Your task to perform on an android device: turn vacation reply on in the gmail app Image 0: 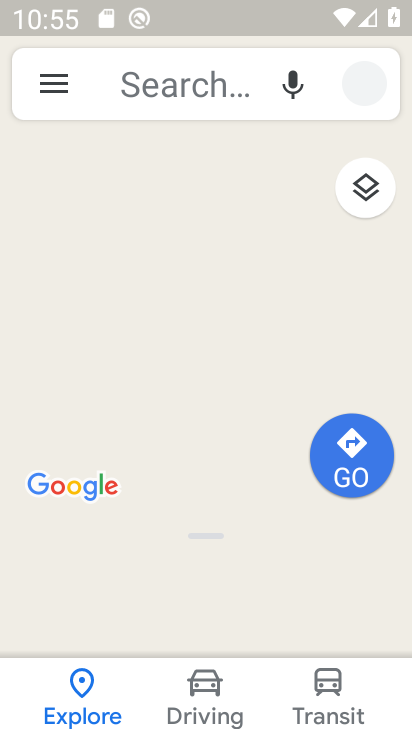
Step 0: press home button
Your task to perform on an android device: turn vacation reply on in the gmail app Image 1: 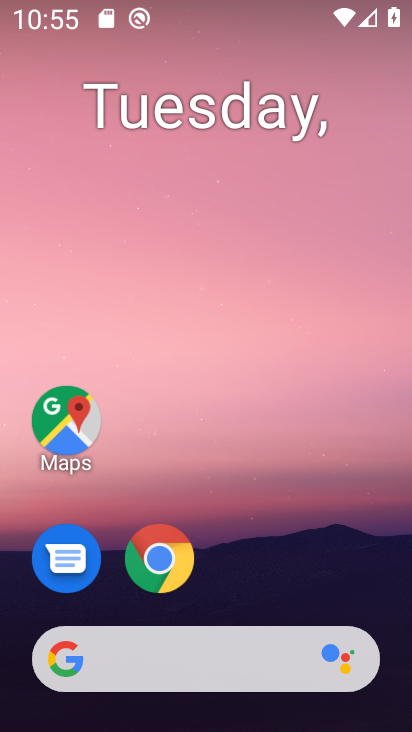
Step 1: drag from (360, 579) to (381, 99)
Your task to perform on an android device: turn vacation reply on in the gmail app Image 2: 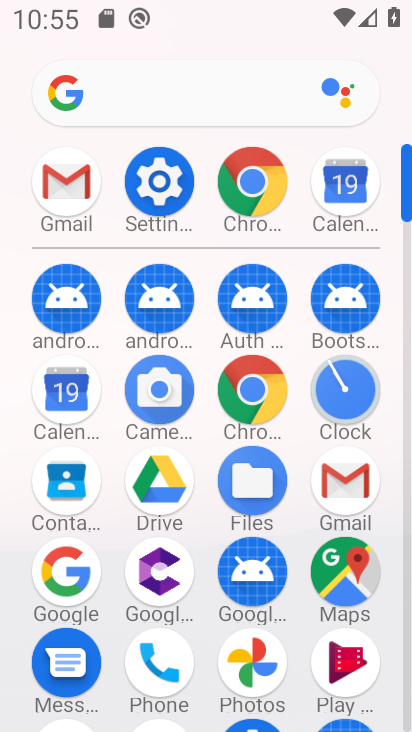
Step 2: click (70, 199)
Your task to perform on an android device: turn vacation reply on in the gmail app Image 3: 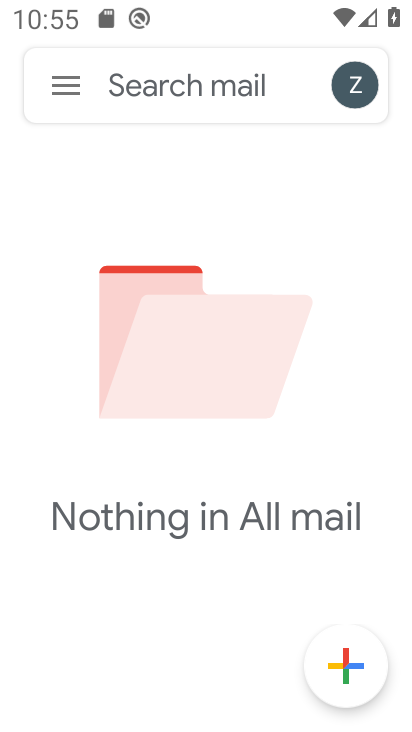
Step 3: click (66, 92)
Your task to perform on an android device: turn vacation reply on in the gmail app Image 4: 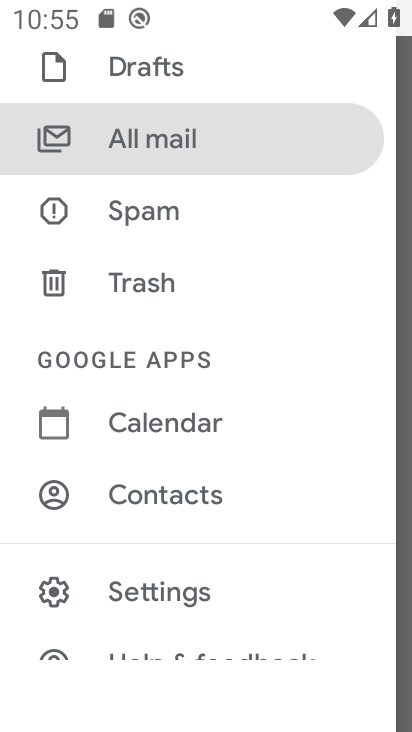
Step 4: drag from (335, 242) to (339, 353)
Your task to perform on an android device: turn vacation reply on in the gmail app Image 5: 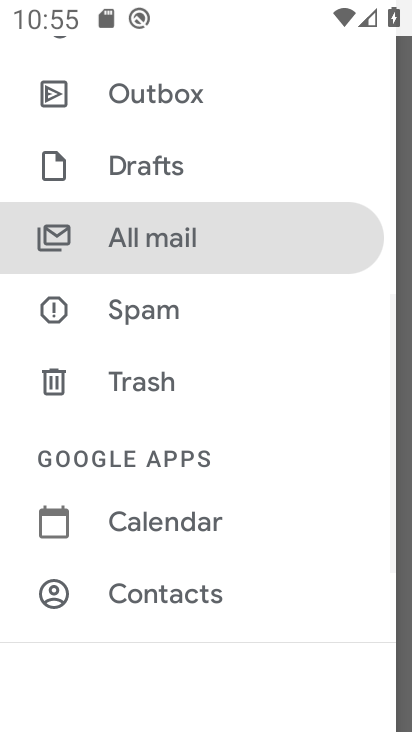
Step 5: drag from (343, 289) to (345, 378)
Your task to perform on an android device: turn vacation reply on in the gmail app Image 6: 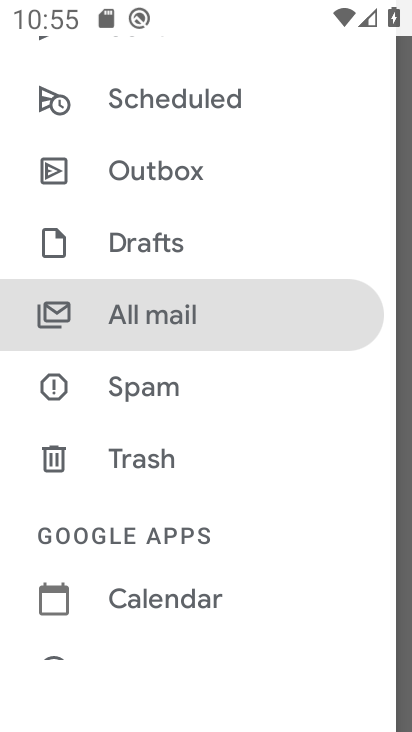
Step 6: drag from (316, 222) to (318, 354)
Your task to perform on an android device: turn vacation reply on in the gmail app Image 7: 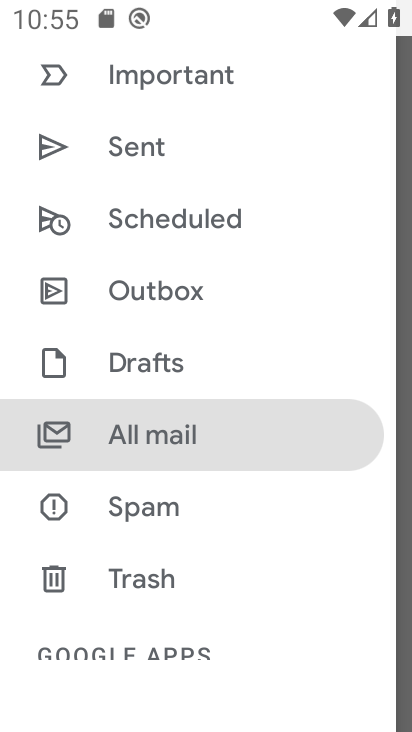
Step 7: drag from (319, 197) to (323, 316)
Your task to perform on an android device: turn vacation reply on in the gmail app Image 8: 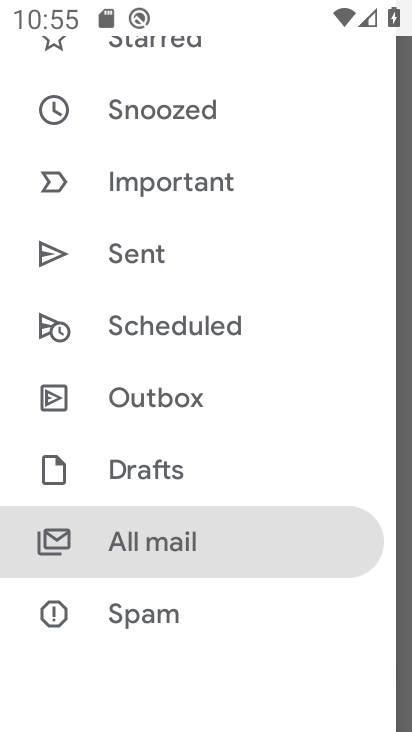
Step 8: drag from (327, 158) to (332, 277)
Your task to perform on an android device: turn vacation reply on in the gmail app Image 9: 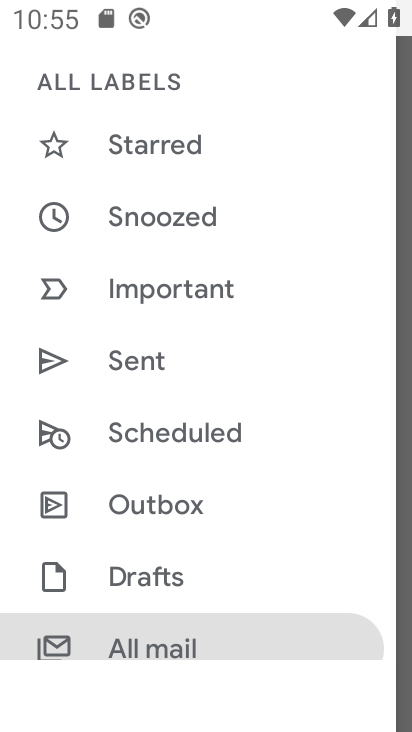
Step 9: drag from (322, 390) to (335, 283)
Your task to perform on an android device: turn vacation reply on in the gmail app Image 10: 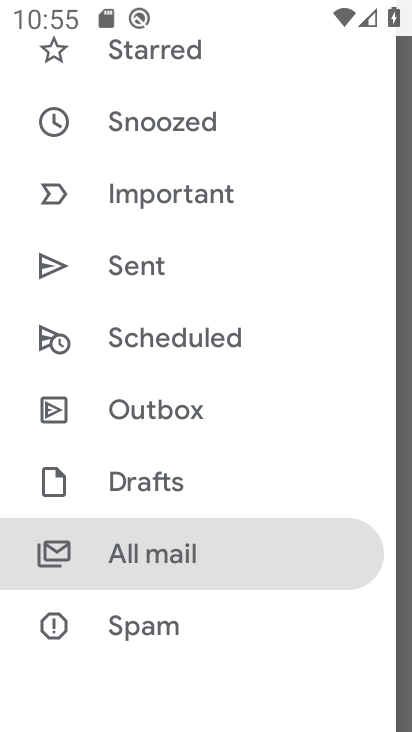
Step 10: drag from (329, 393) to (312, 252)
Your task to perform on an android device: turn vacation reply on in the gmail app Image 11: 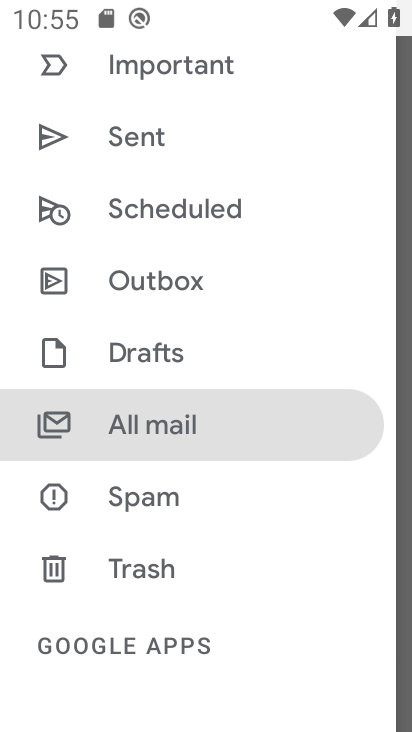
Step 11: drag from (322, 497) to (322, 323)
Your task to perform on an android device: turn vacation reply on in the gmail app Image 12: 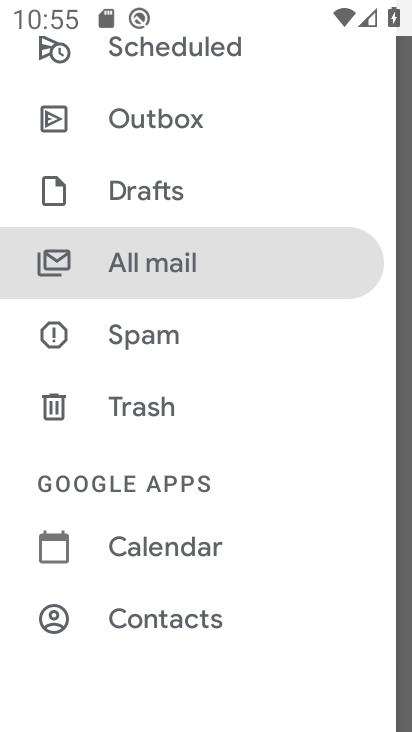
Step 12: drag from (310, 456) to (318, 310)
Your task to perform on an android device: turn vacation reply on in the gmail app Image 13: 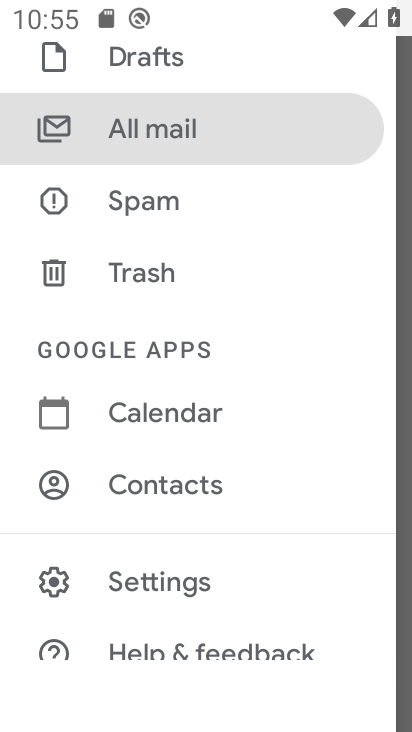
Step 13: click (277, 564)
Your task to perform on an android device: turn vacation reply on in the gmail app Image 14: 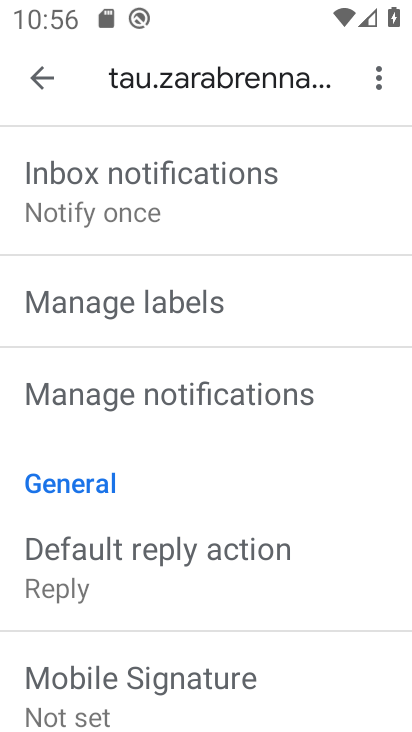
Step 14: drag from (352, 579) to (353, 427)
Your task to perform on an android device: turn vacation reply on in the gmail app Image 15: 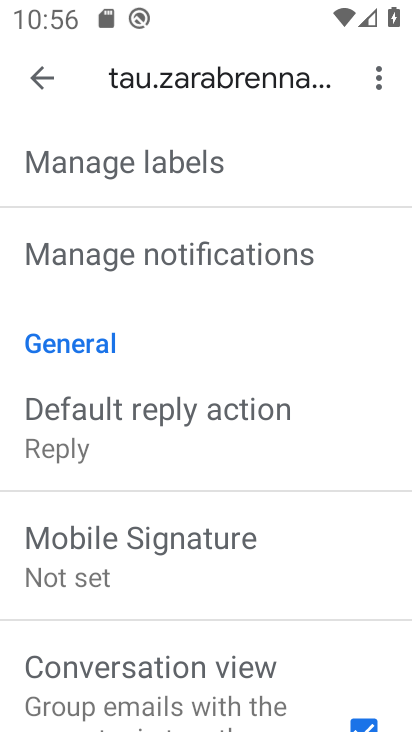
Step 15: drag from (344, 567) to (346, 431)
Your task to perform on an android device: turn vacation reply on in the gmail app Image 16: 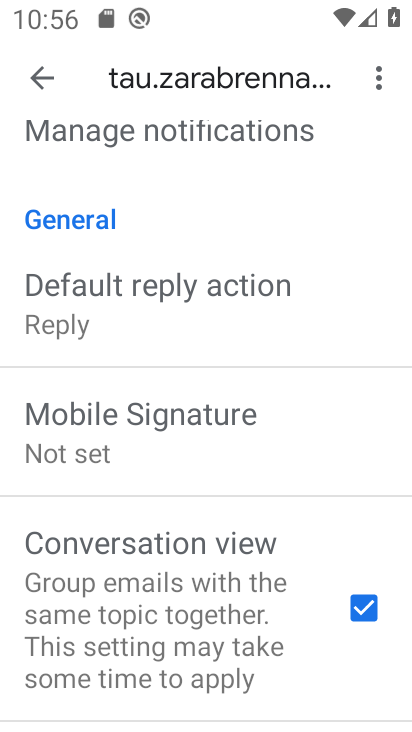
Step 16: drag from (313, 558) to (315, 457)
Your task to perform on an android device: turn vacation reply on in the gmail app Image 17: 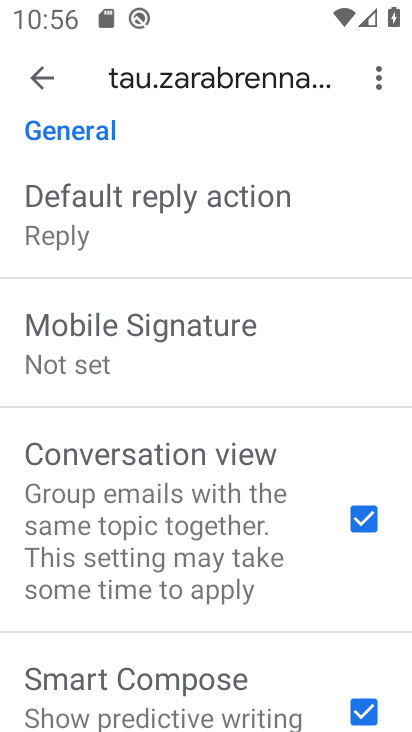
Step 17: drag from (310, 638) to (308, 488)
Your task to perform on an android device: turn vacation reply on in the gmail app Image 18: 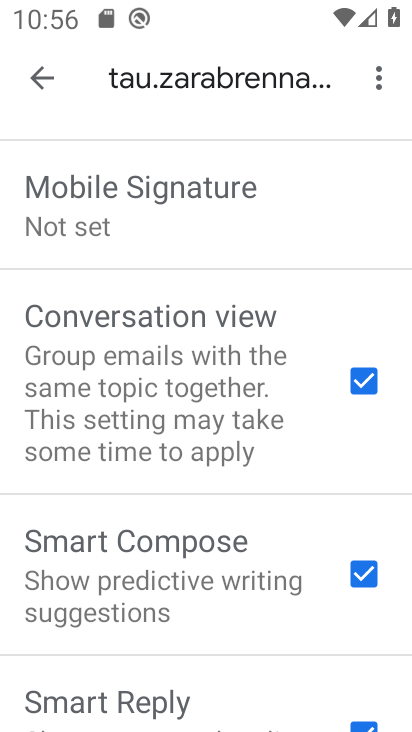
Step 18: drag from (302, 647) to (304, 507)
Your task to perform on an android device: turn vacation reply on in the gmail app Image 19: 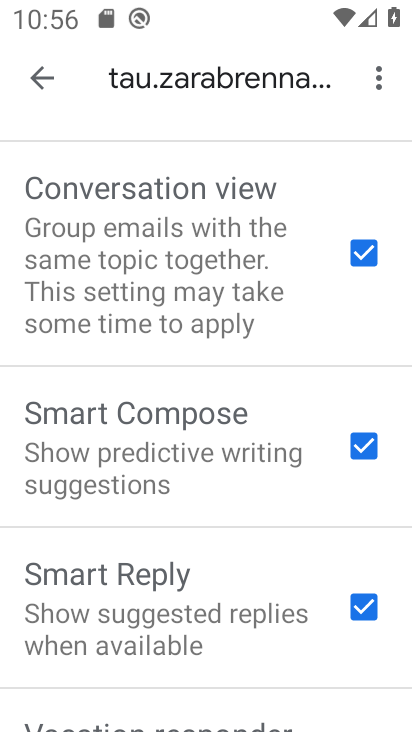
Step 19: drag from (301, 658) to (302, 510)
Your task to perform on an android device: turn vacation reply on in the gmail app Image 20: 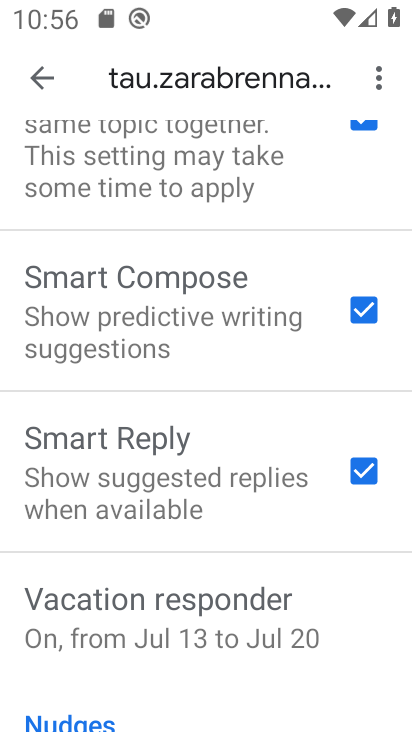
Step 20: click (270, 617)
Your task to perform on an android device: turn vacation reply on in the gmail app Image 21: 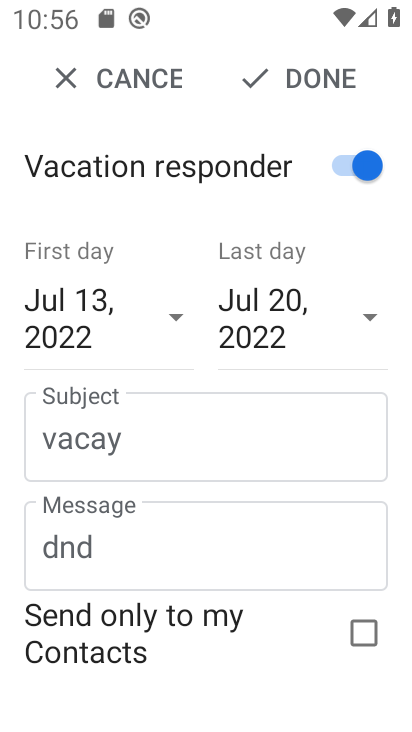
Step 21: task complete